Your task to perform on an android device: What's the weather? Image 0: 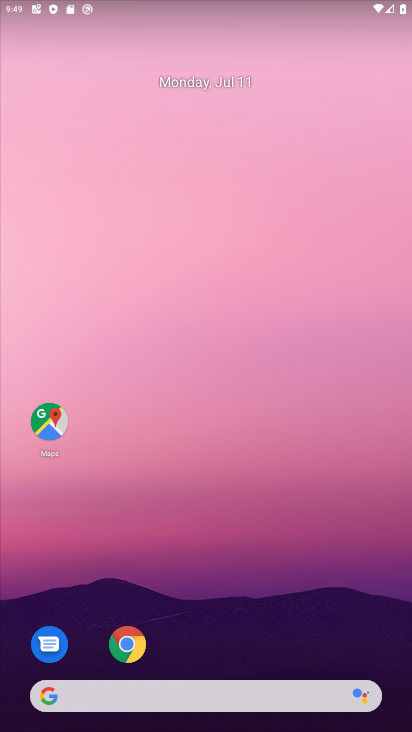
Step 0: drag from (208, 620) to (246, 83)
Your task to perform on an android device: What's the weather? Image 1: 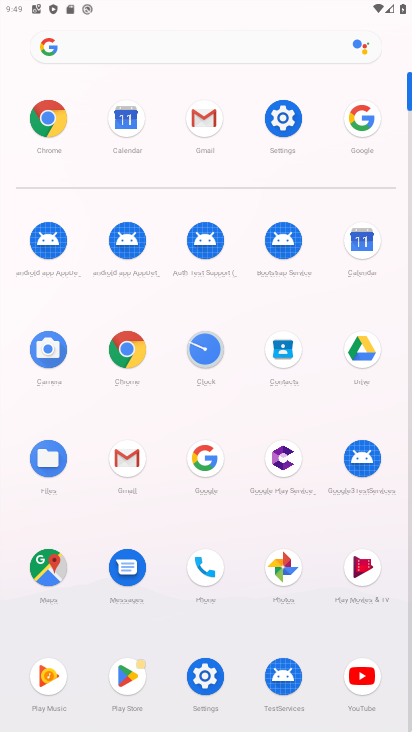
Step 1: click (366, 115)
Your task to perform on an android device: What's the weather? Image 2: 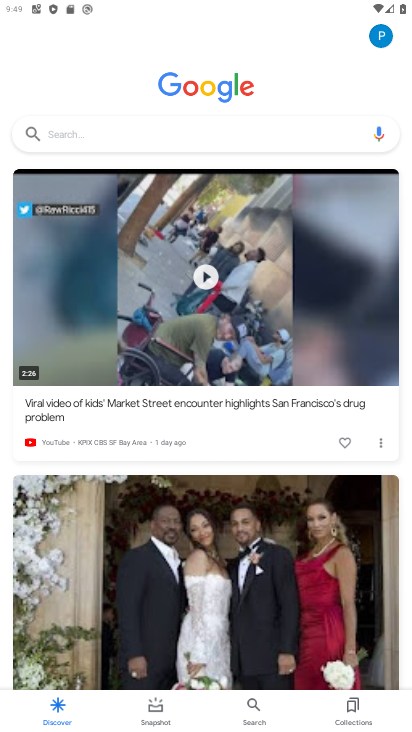
Step 2: click (169, 123)
Your task to perform on an android device: What's the weather? Image 3: 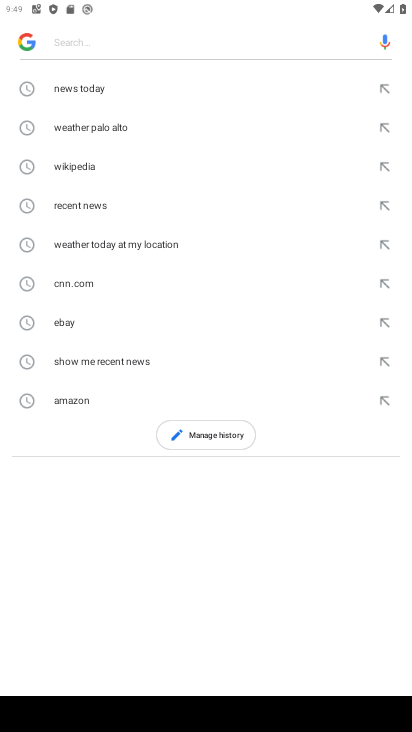
Step 3: type "weather"
Your task to perform on an android device: What's the weather? Image 4: 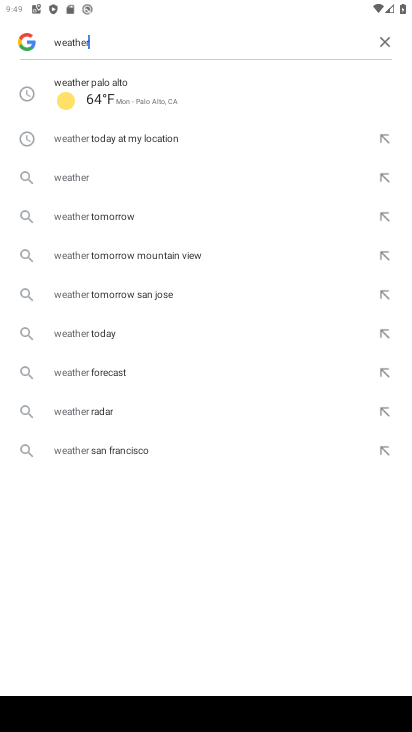
Step 4: drag from (133, 90) to (403, 437)
Your task to perform on an android device: What's the weather? Image 5: 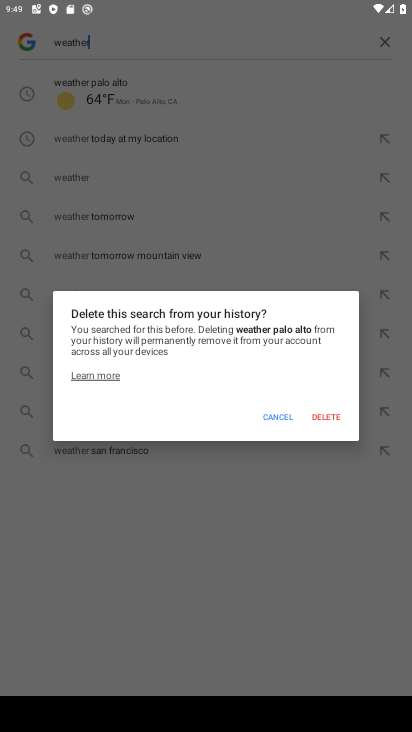
Step 5: click (288, 421)
Your task to perform on an android device: What's the weather? Image 6: 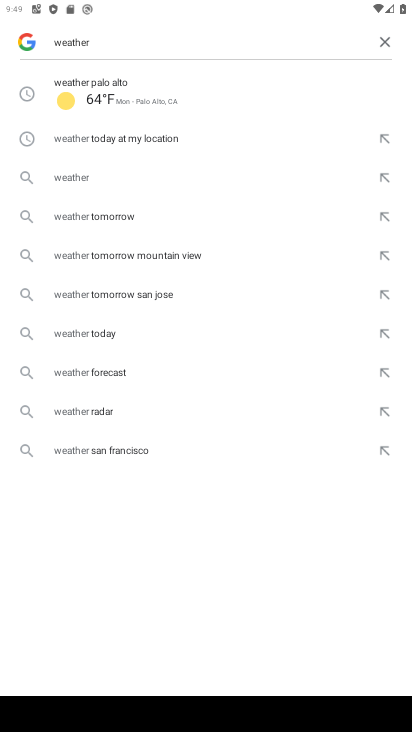
Step 6: click (90, 175)
Your task to perform on an android device: What's the weather? Image 7: 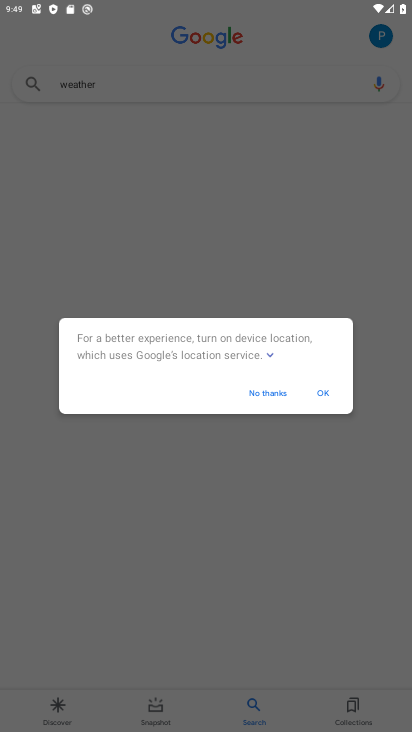
Step 7: click (271, 391)
Your task to perform on an android device: What's the weather? Image 8: 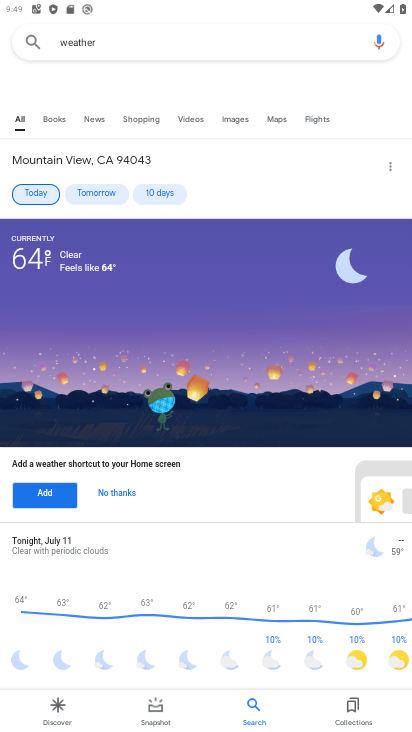
Step 8: task complete